Your task to perform on an android device: delete a single message in the gmail app Image 0: 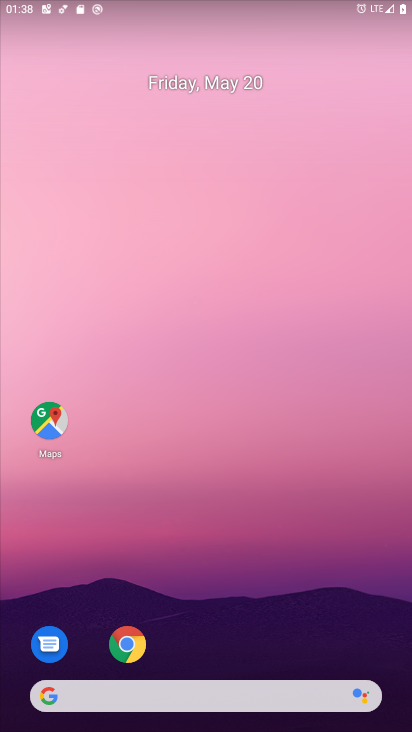
Step 0: drag from (160, 672) to (231, 193)
Your task to perform on an android device: delete a single message in the gmail app Image 1: 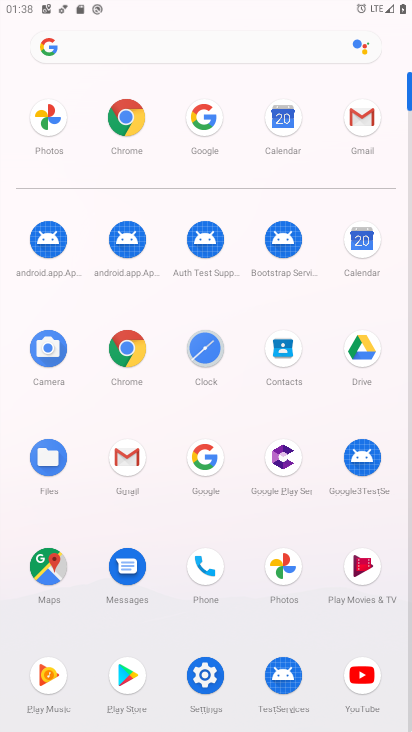
Step 1: click (119, 466)
Your task to perform on an android device: delete a single message in the gmail app Image 2: 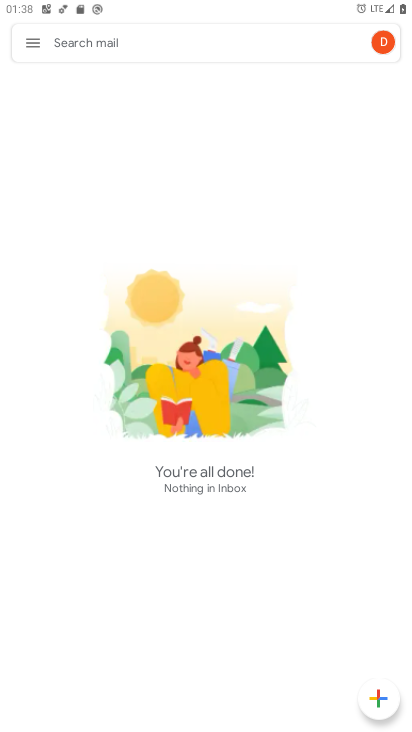
Step 2: task complete